Your task to perform on an android device: Open Maps and search for coffee Image 0: 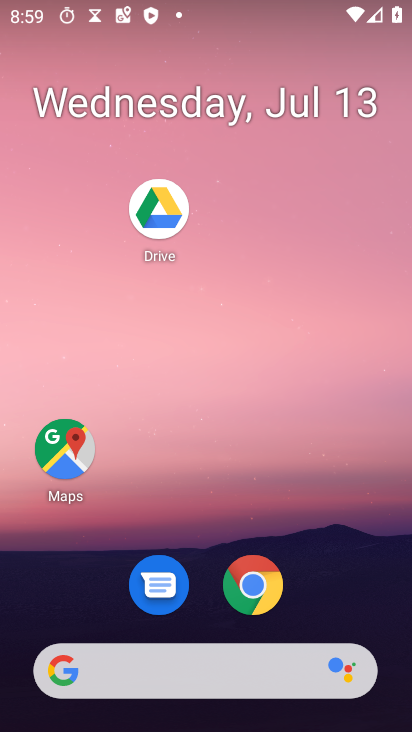
Step 0: click (69, 462)
Your task to perform on an android device: Open Maps and search for coffee Image 1: 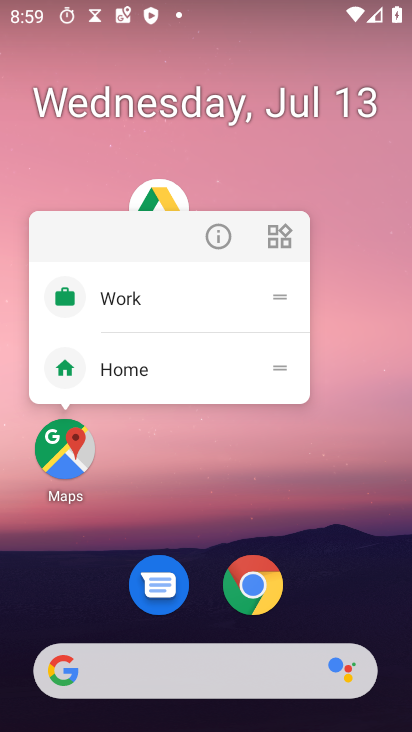
Step 1: click (72, 456)
Your task to perform on an android device: Open Maps and search for coffee Image 2: 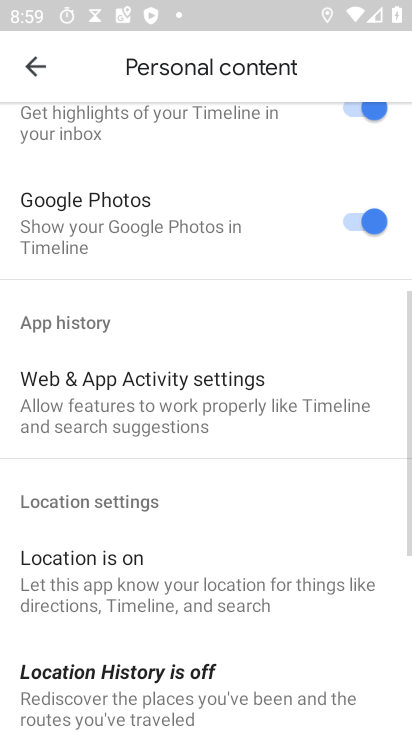
Step 2: click (39, 64)
Your task to perform on an android device: Open Maps and search for coffee Image 3: 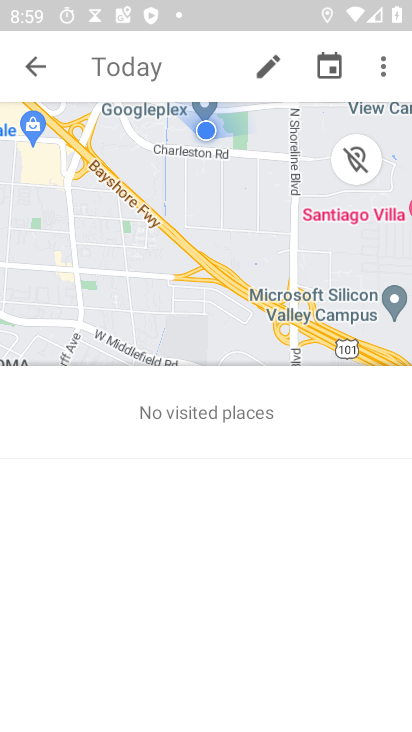
Step 3: click (39, 64)
Your task to perform on an android device: Open Maps and search for coffee Image 4: 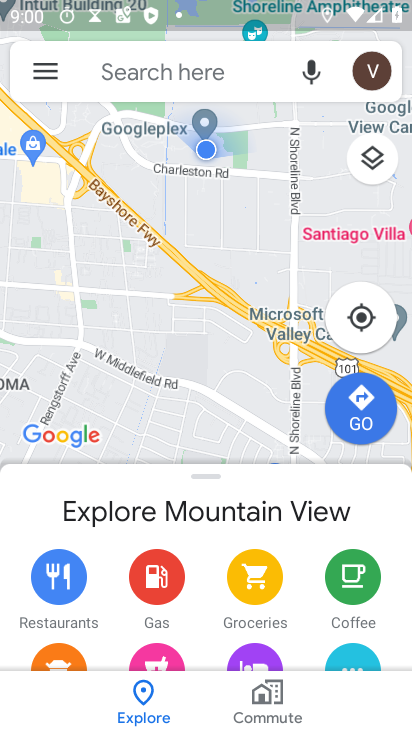
Step 4: click (158, 77)
Your task to perform on an android device: Open Maps and search for coffee Image 5: 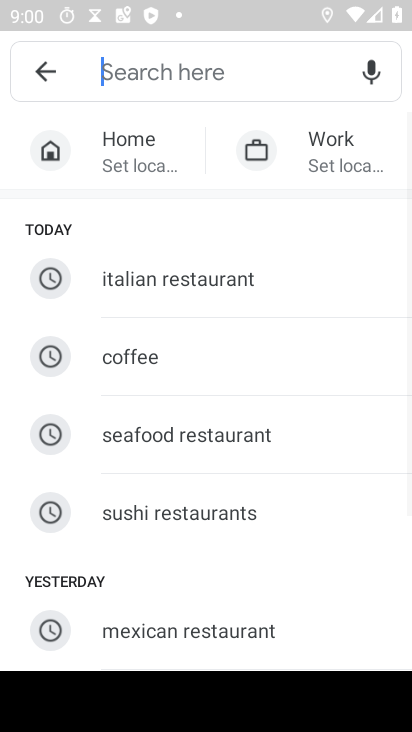
Step 5: click (141, 352)
Your task to perform on an android device: Open Maps and search for coffee Image 6: 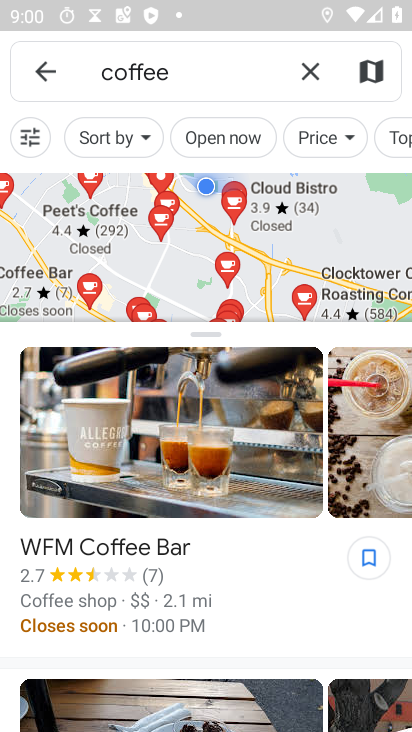
Step 6: task complete